Your task to perform on an android device: change the clock display to digital Image 0: 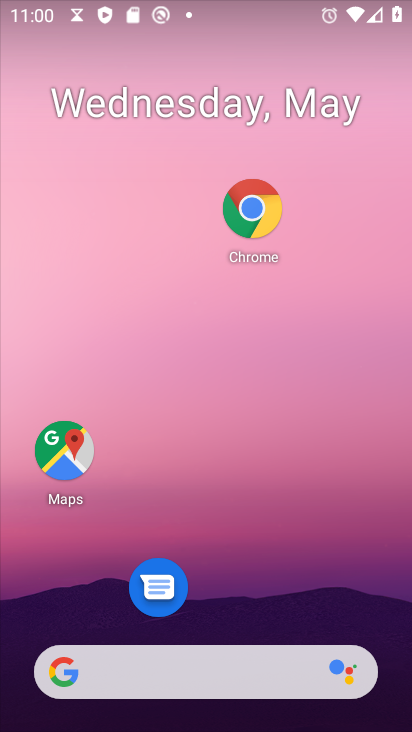
Step 0: drag from (224, 601) to (331, 40)
Your task to perform on an android device: change the clock display to digital Image 1: 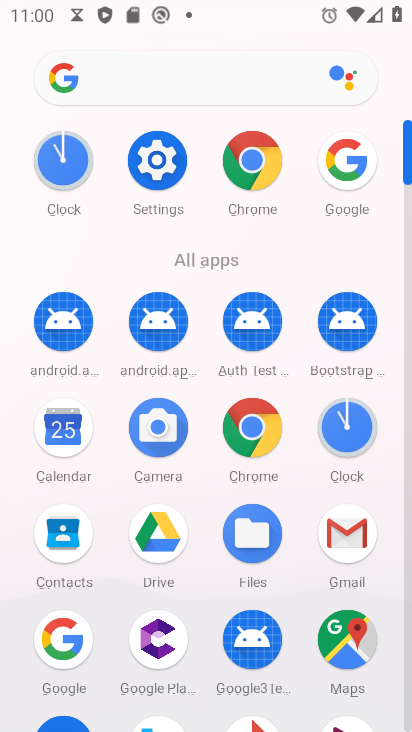
Step 1: click (336, 426)
Your task to perform on an android device: change the clock display to digital Image 2: 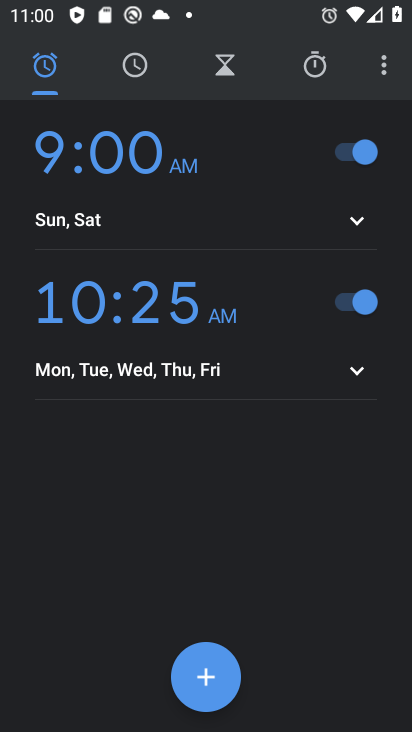
Step 2: click (385, 80)
Your task to perform on an android device: change the clock display to digital Image 3: 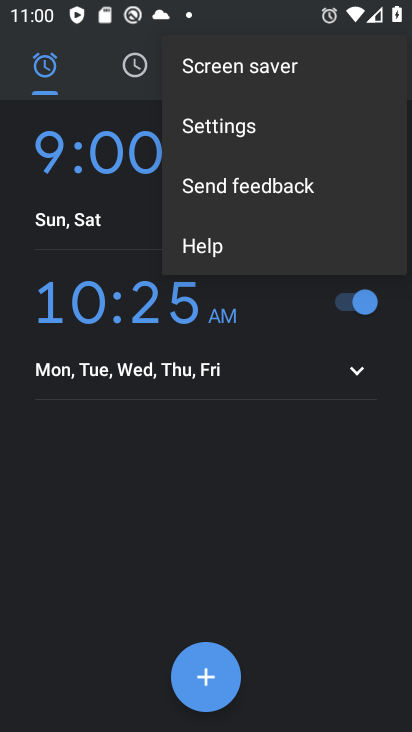
Step 3: click (255, 129)
Your task to perform on an android device: change the clock display to digital Image 4: 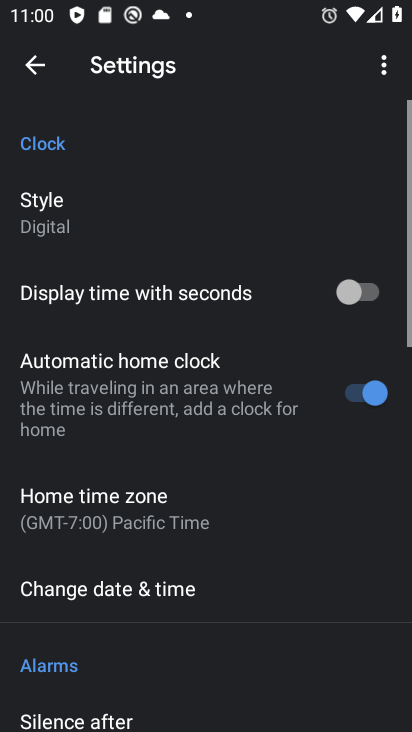
Step 4: click (78, 221)
Your task to perform on an android device: change the clock display to digital Image 5: 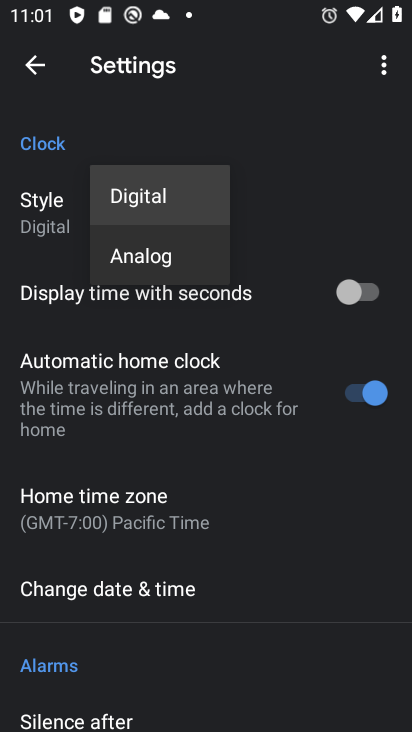
Step 5: task complete